Your task to perform on an android device: Go to Maps Image 0: 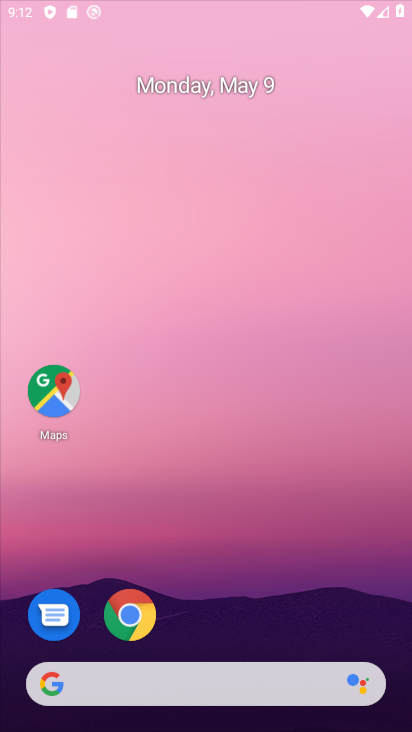
Step 0: drag from (342, 119) to (335, 6)
Your task to perform on an android device: Go to Maps Image 1: 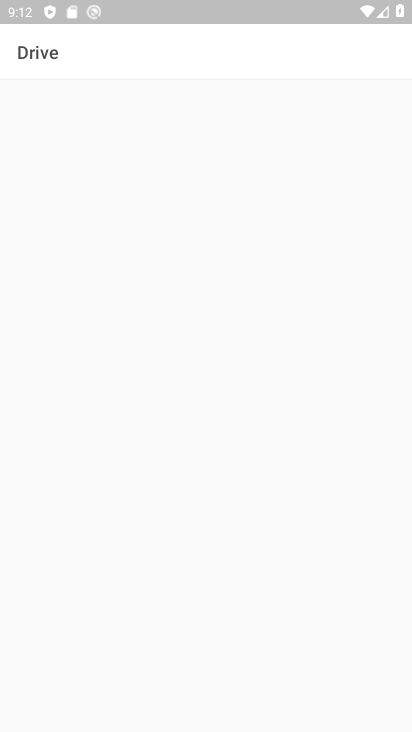
Step 1: press home button
Your task to perform on an android device: Go to Maps Image 2: 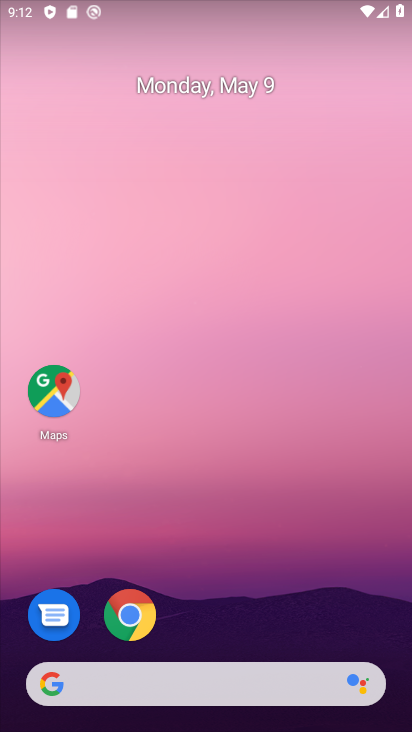
Step 2: click (62, 382)
Your task to perform on an android device: Go to Maps Image 3: 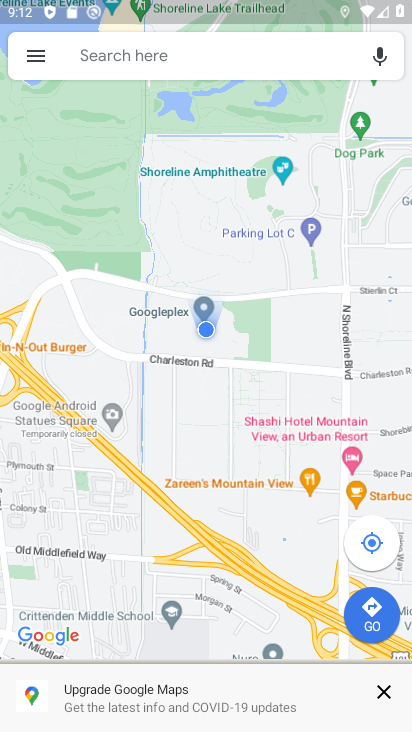
Step 3: task complete